Your task to perform on an android device: turn notification dots on Image 0: 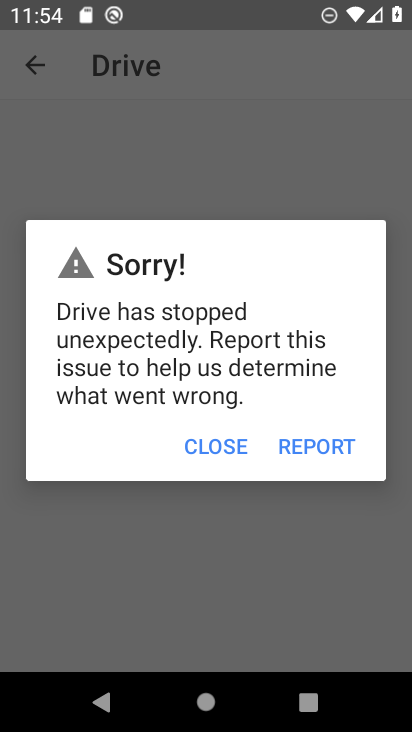
Step 0: press home button
Your task to perform on an android device: turn notification dots on Image 1: 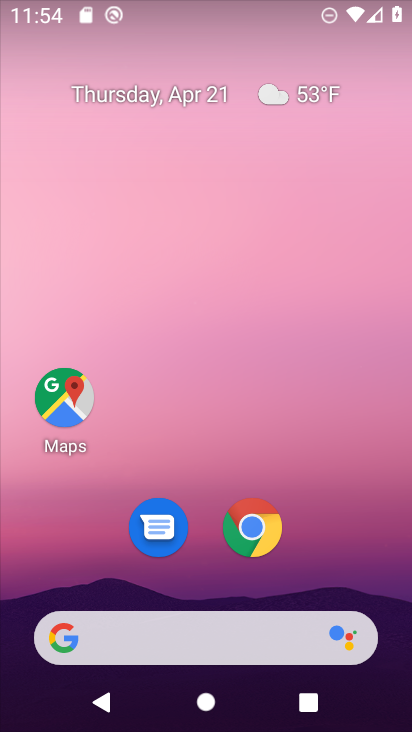
Step 1: drag from (365, 547) to (360, 74)
Your task to perform on an android device: turn notification dots on Image 2: 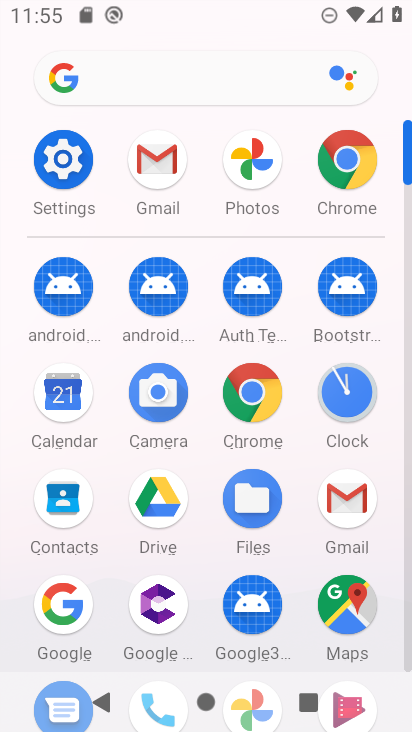
Step 2: click (63, 173)
Your task to perform on an android device: turn notification dots on Image 3: 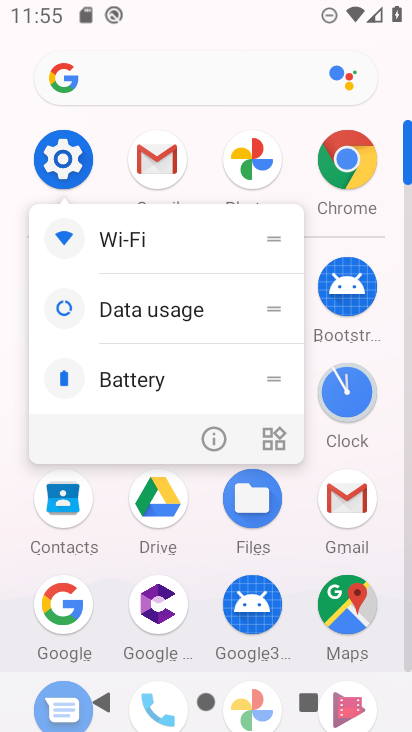
Step 3: click (61, 171)
Your task to perform on an android device: turn notification dots on Image 4: 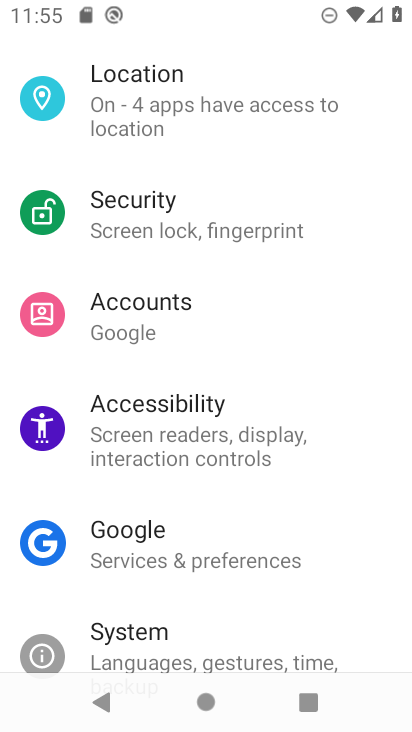
Step 4: drag from (358, 317) to (366, 427)
Your task to perform on an android device: turn notification dots on Image 5: 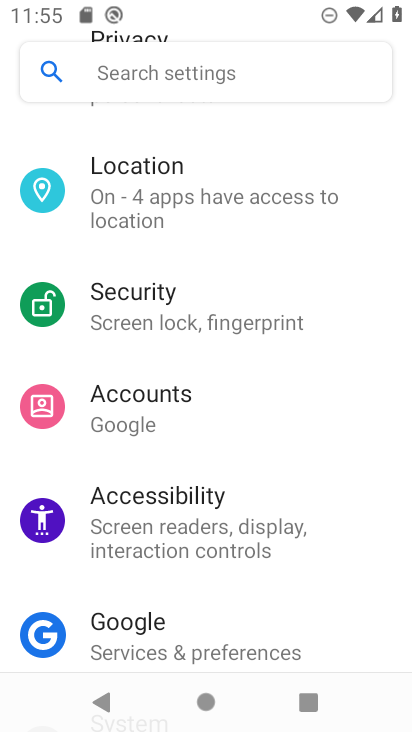
Step 5: drag from (358, 293) to (357, 440)
Your task to perform on an android device: turn notification dots on Image 6: 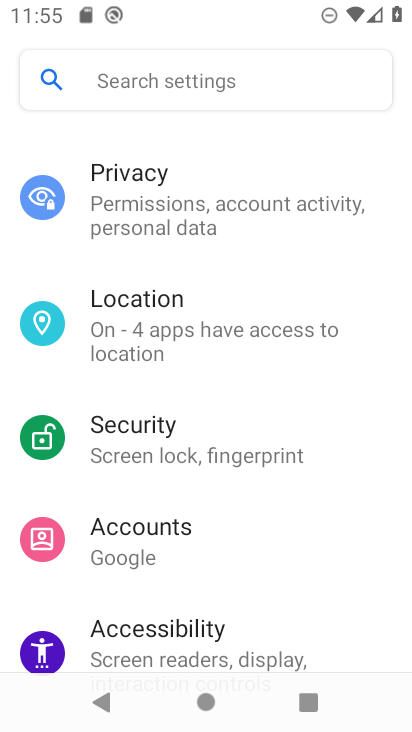
Step 6: drag from (371, 285) to (373, 411)
Your task to perform on an android device: turn notification dots on Image 7: 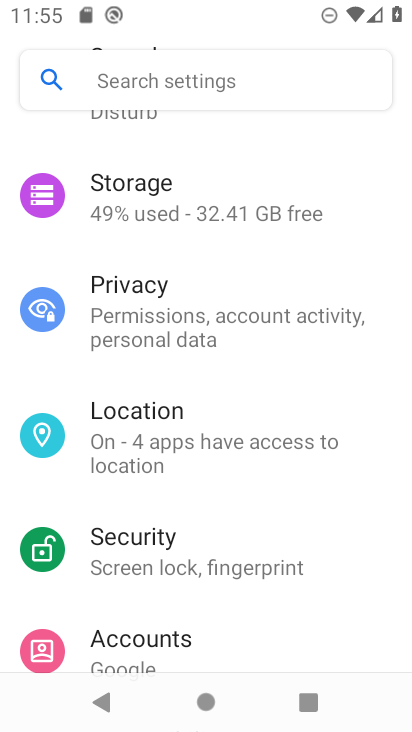
Step 7: drag from (381, 285) to (375, 417)
Your task to perform on an android device: turn notification dots on Image 8: 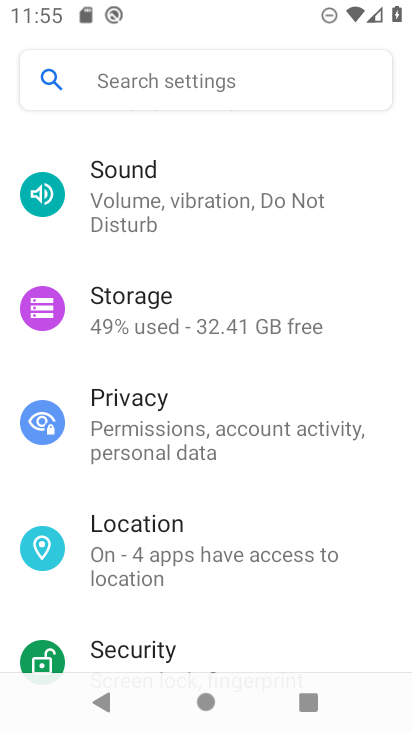
Step 8: drag from (374, 302) to (371, 393)
Your task to perform on an android device: turn notification dots on Image 9: 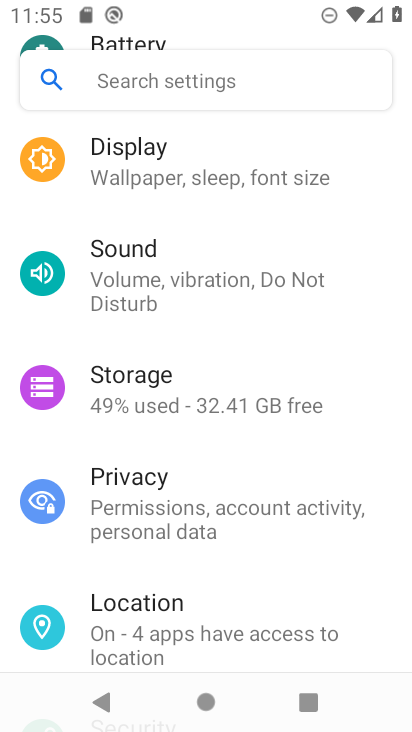
Step 9: drag from (364, 292) to (401, 403)
Your task to perform on an android device: turn notification dots on Image 10: 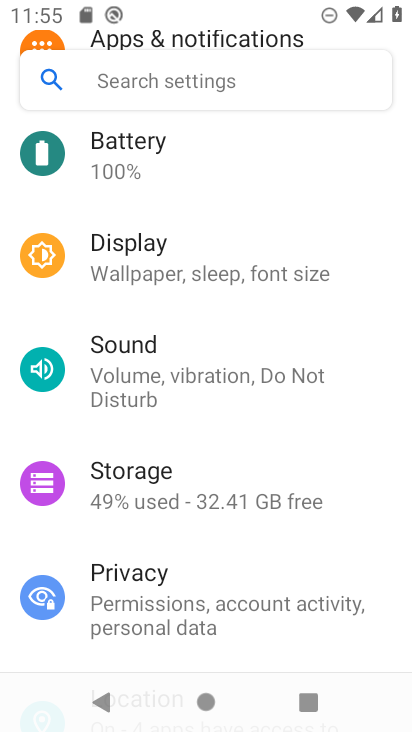
Step 10: drag from (356, 261) to (354, 425)
Your task to perform on an android device: turn notification dots on Image 11: 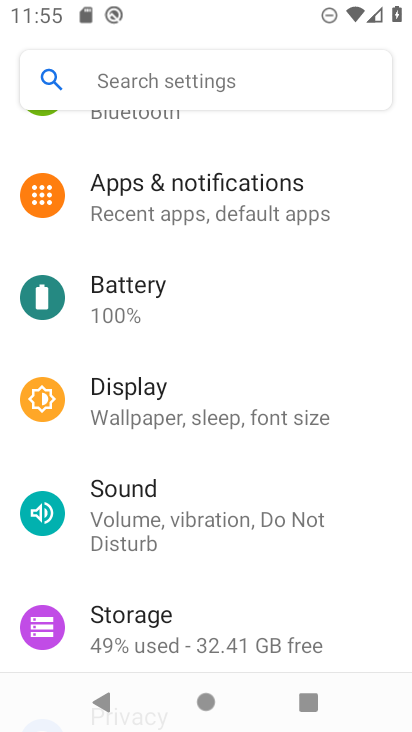
Step 11: click (262, 202)
Your task to perform on an android device: turn notification dots on Image 12: 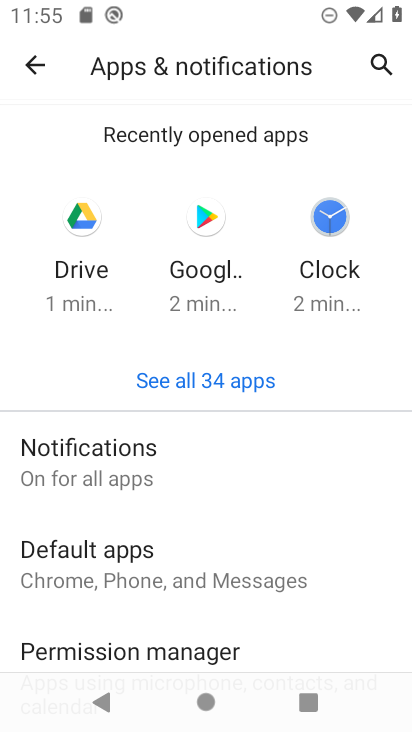
Step 12: click (122, 457)
Your task to perform on an android device: turn notification dots on Image 13: 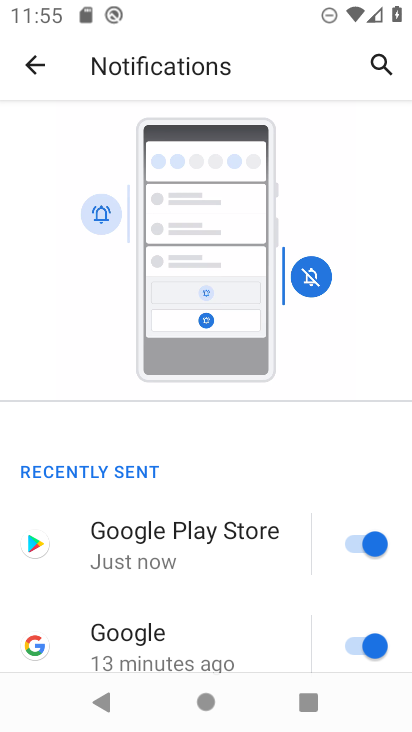
Step 13: drag from (260, 588) to (255, 361)
Your task to perform on an android device: turn notification dots on Image 14: 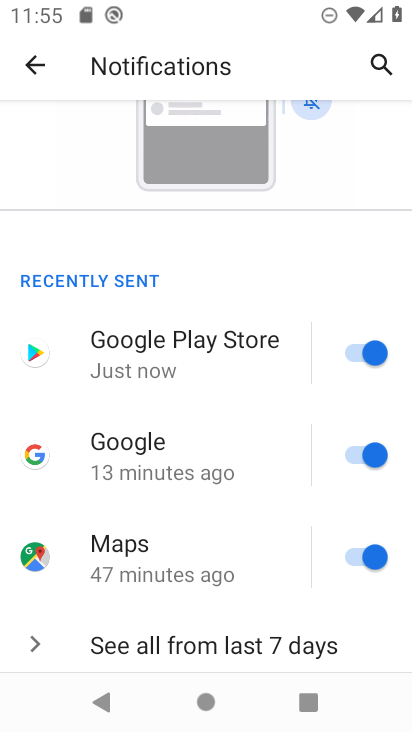
Step 14: drag from (268, 543) to (270, 303)
Your task to perform on an android device: turn notification dots on Image 15: 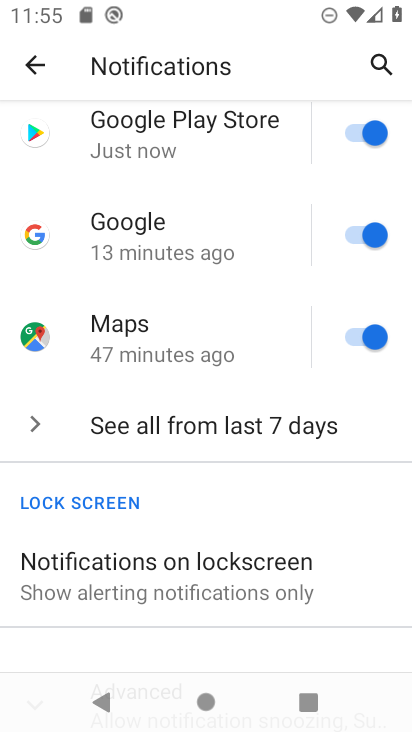
Step 15: drag from (336, 575) to (332, 352)
Your task to perform on an android device: turn notification dots on Image 16: 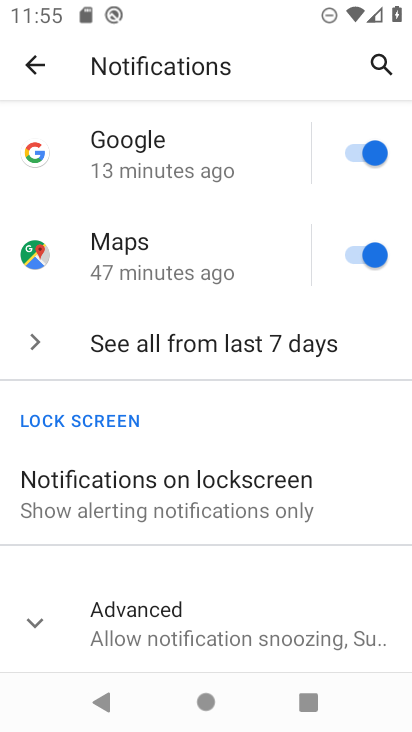
Step 16: click (270, 627)
Your task to perform on an android device: turn notification dots on Image 17: 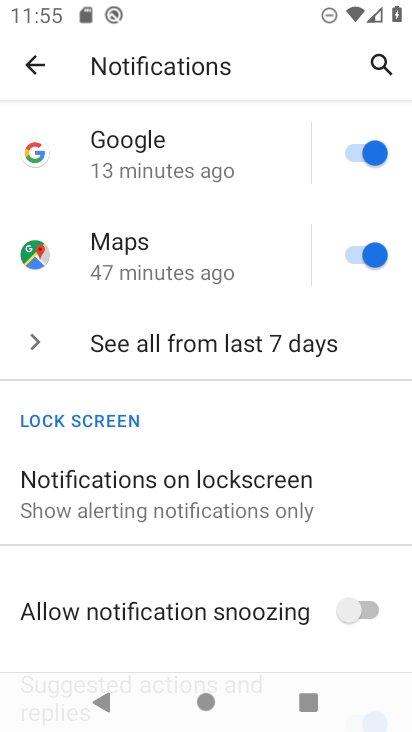
Step 17: task complete